Your task to perform on an android device: Check the news Image 0: 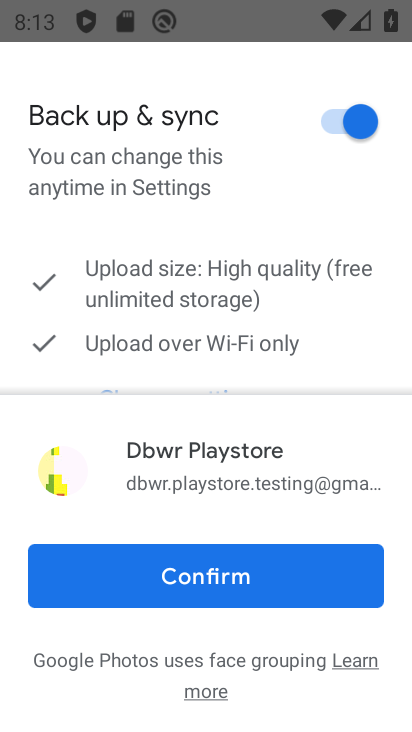
Step 0: press home button
Your task to perform on an android device: Check the news Image 1: 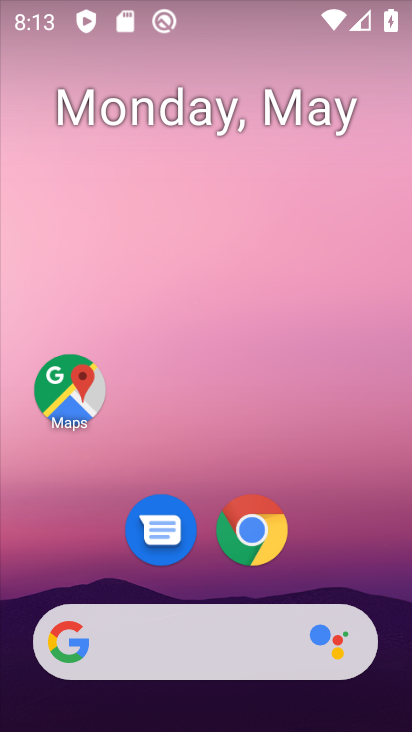
Step 1: click (266, 549)
Your task to perform on an android device: Check the news Image 2: 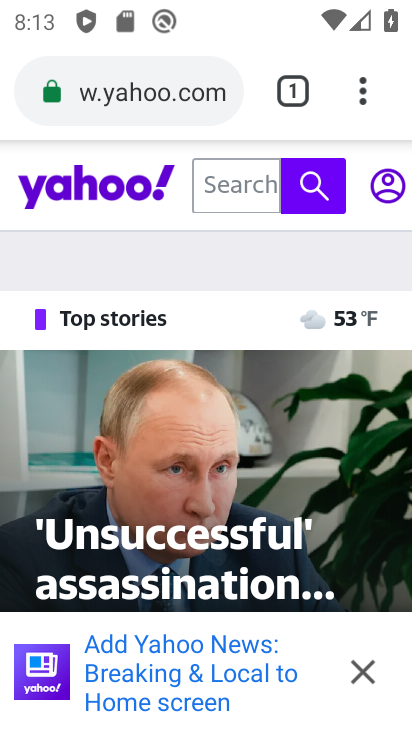
Step 2: click (192, 100)
Your task to perform on an android device: Check the news Image 3: 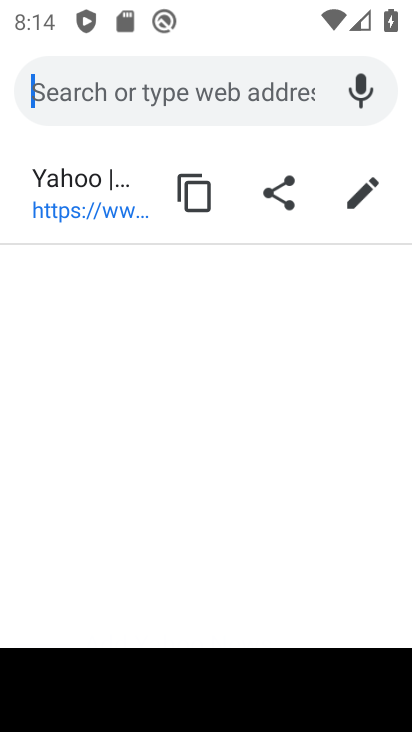
Step 3: type "news"
Your task to perform on an android device: Check the news Image 4: 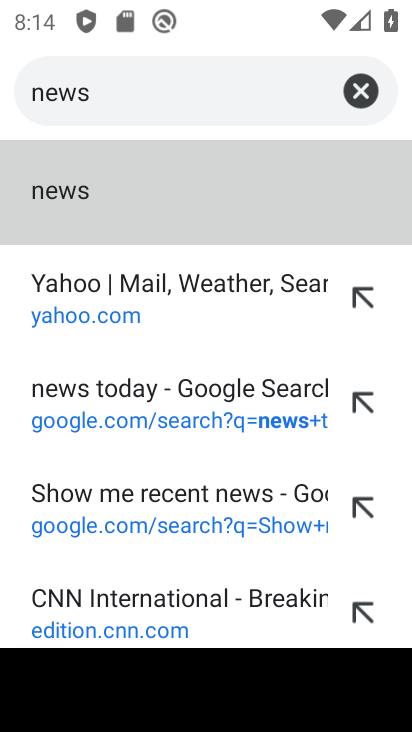
Step 4: click (58, 195)
Your task to perform on an android device: Check the news Image 5: 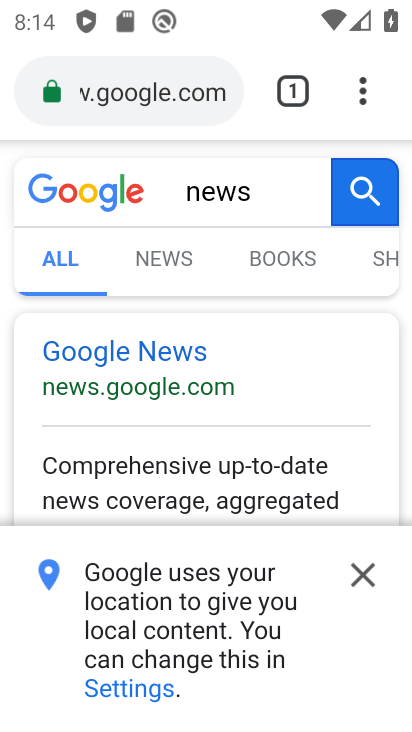
Step 5: click (355, 568)
Your task to perform on an android device: Check the news Image 6: 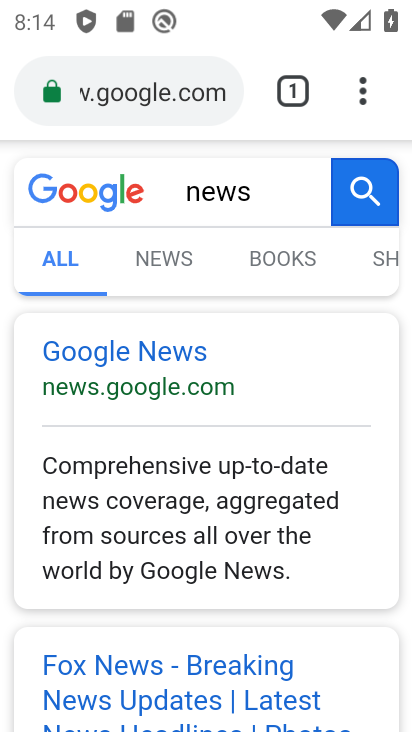
Step 6: click (135, 350)
Your task to perform on an android device: Check the news Image 7: 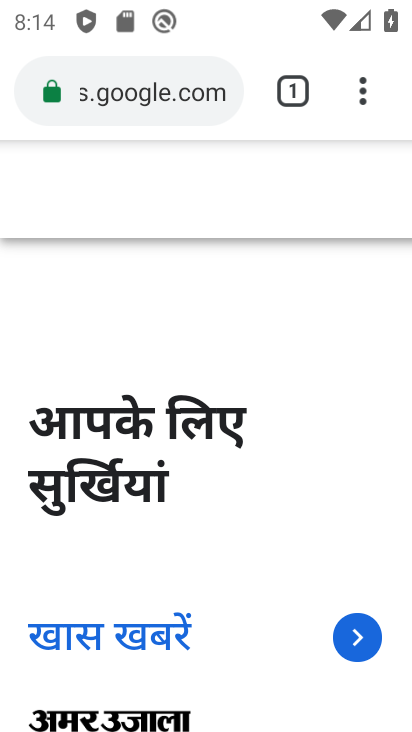
Step 7: task complete